Your task to perform on an android device: turn off notifications in google photos Image 0: 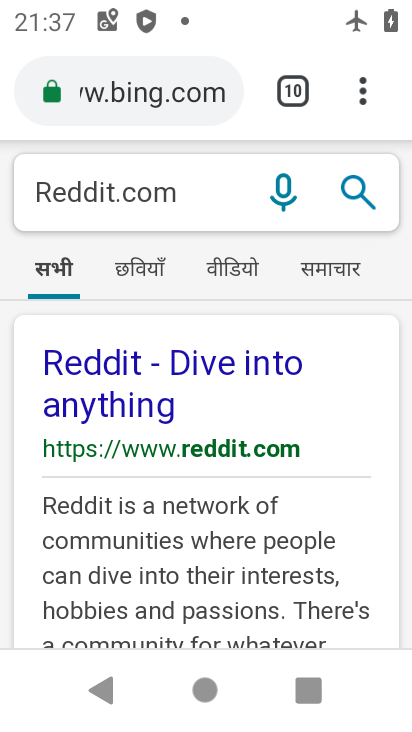
Step 0: press home button
Your task to perform on an android device: turn off notifications in google photos Image 1: 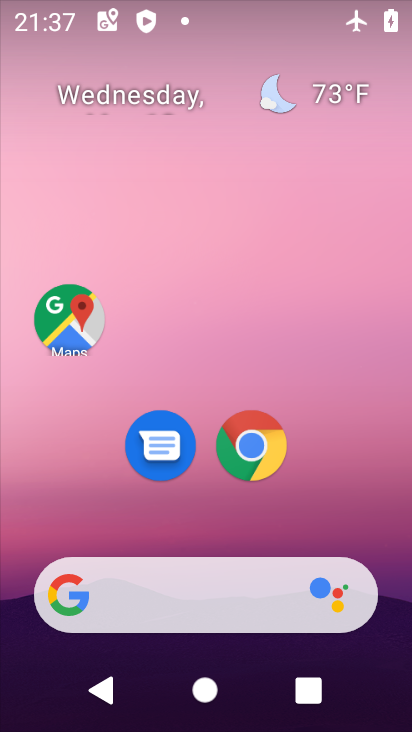
Step 1: drag from (324, 480) to (345, 170)
Your task to perform on an android device: turn off notifications in google photos Image 2: 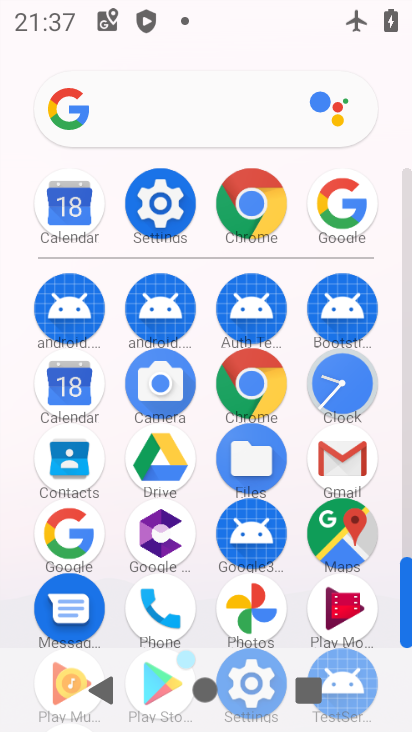
Step 2: click (239, 595)
Your task to perform on an android device: turn off notifications in google photos Image 3: 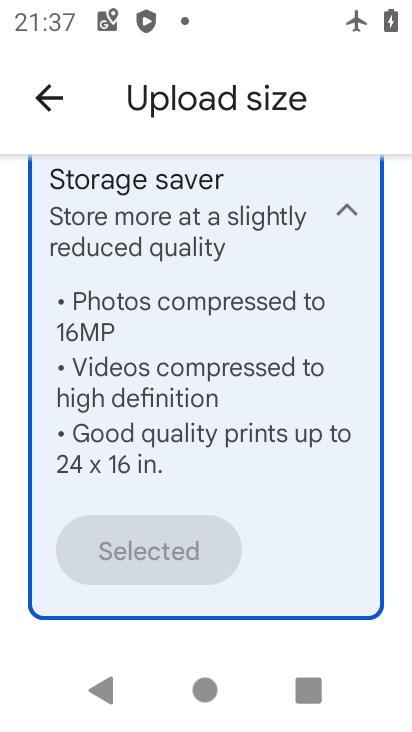
Step 3: click (43, 106)
Your task to perform on an android device: turn off notifications in google photos Image 4: 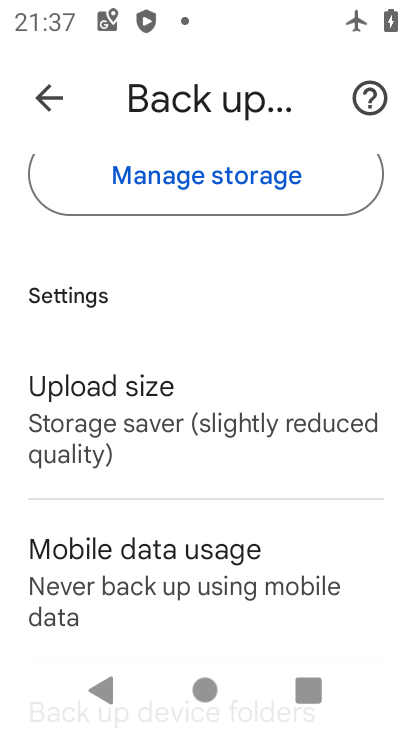
Step 4: click (36, 110)
Your task to perform on an android device: turn off notifications in google photos Image 5: 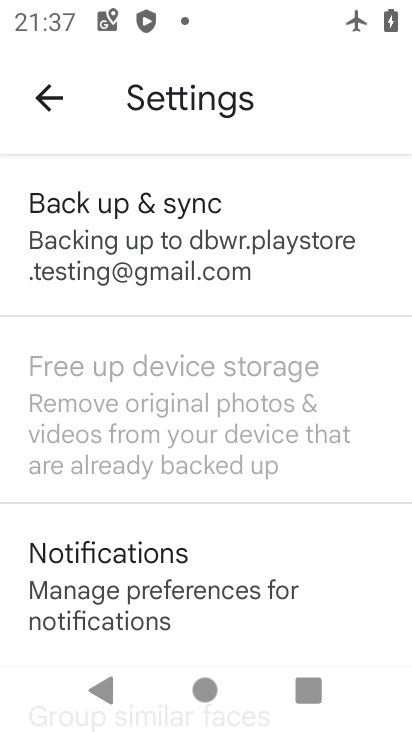
Step 5: click (227, 562)
Your task to perform on an android device: turn off notifications in google photos Image 6: 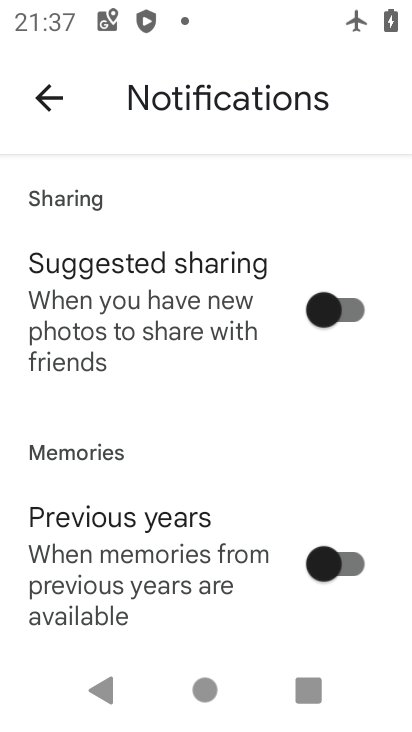
Step 6: drag from (189, 569) to (222, 199)
Your task to perform on an android device: turn off notifications in google photos Image 7: 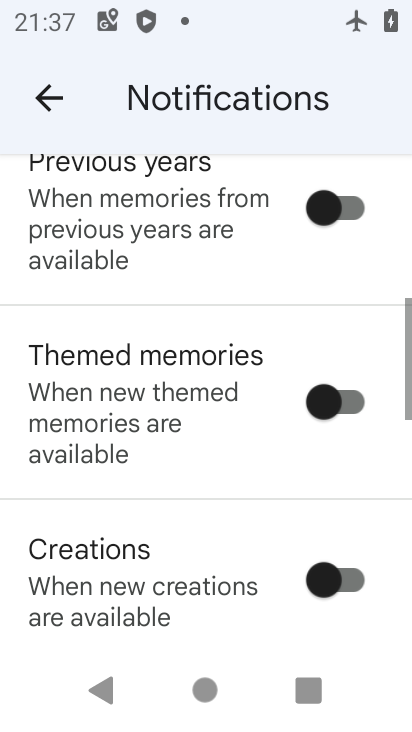
Step 7: click (54, 104)
Your task to perform on an android device: turn off notifications in google photos Image 8: 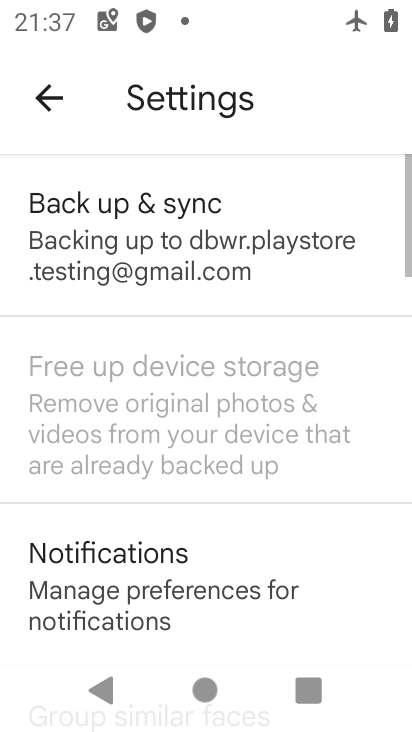
Step 8: click (165, 551)
Your task to perform on an android device: turn off notifications in google photos Image 9: 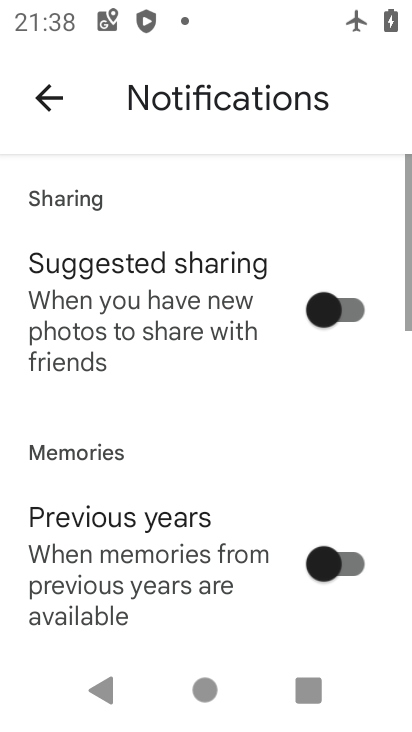
Step 9: drag from (211, 246) to (236, 629)
Your task to perform on an android device: turn off notifications in google photos Image 10: 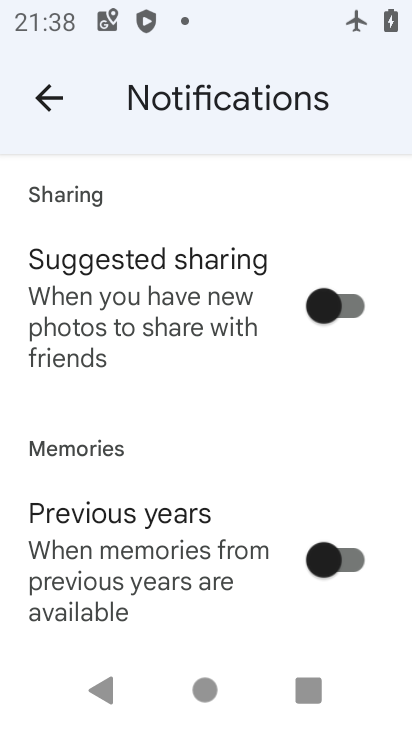
Step 10: click (61, 99)
Your task to perform on an android device: turn off notifications in google photos Image 11: 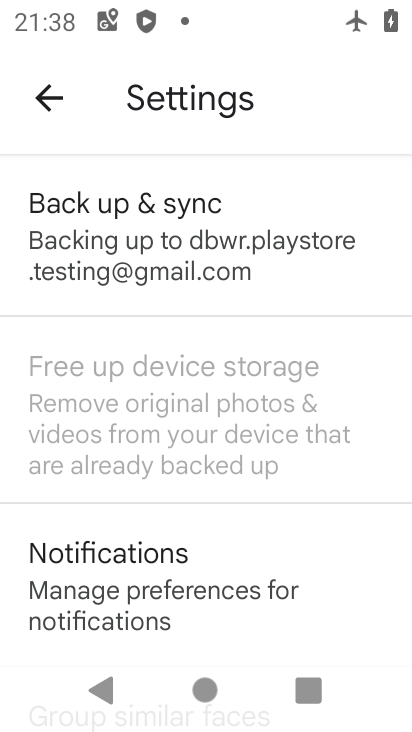
Step 11: click (32, 92)
Your task to perform on an android device: turn off notifications in google photos Image 12: 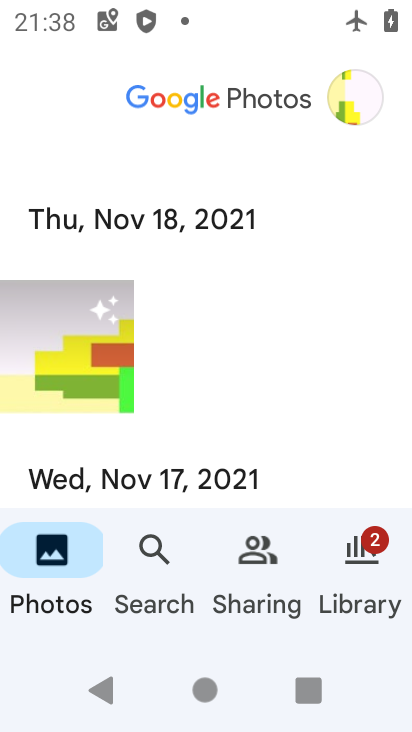
Step 12: click (345, 92)
Your task to perform on an android device: turn off notifications in google photos Image 13: 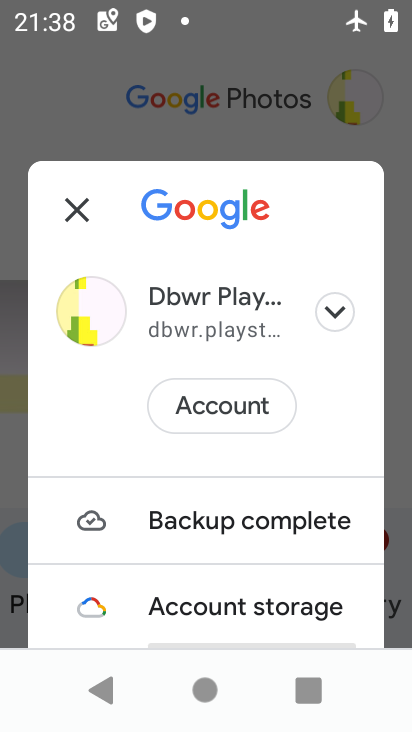
Step 13: drag from (254, 575) to (312, 152)
Your task to perform on an android device: turn off notifications in google photos Image 14: 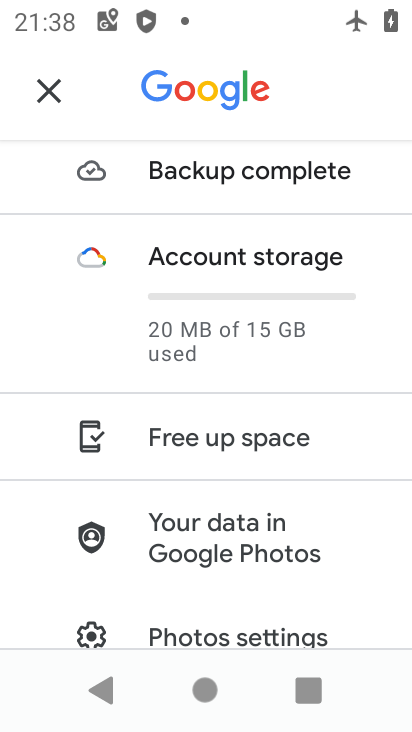
Step 14: drag from (270, 580) to (331, 348)
Your task to perform on an android device: turn off notifications in google photos Image 15: 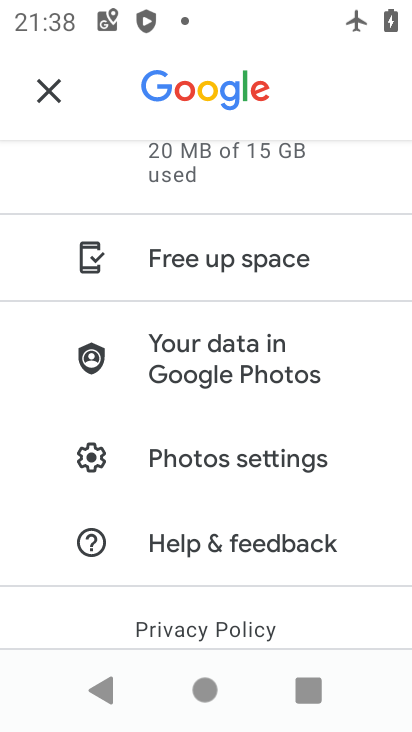
Step 15: click (229, 470)
Your task to perform on an android device: turn off notifications in google photos Image 16: 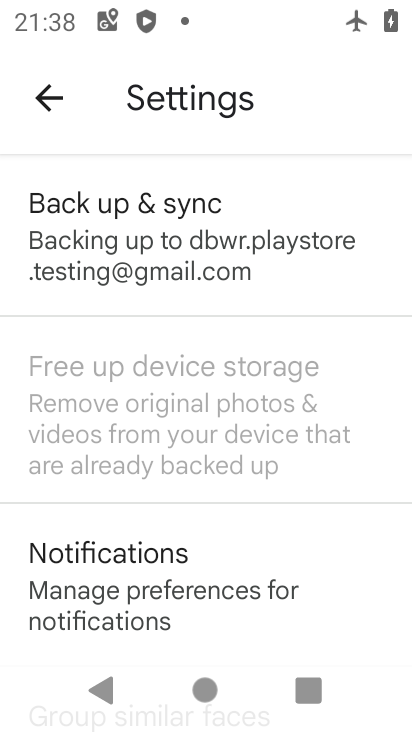
Step 16: click (273, 548)
Your task to perform on an android device: turn off notifications in google photos Image 17: 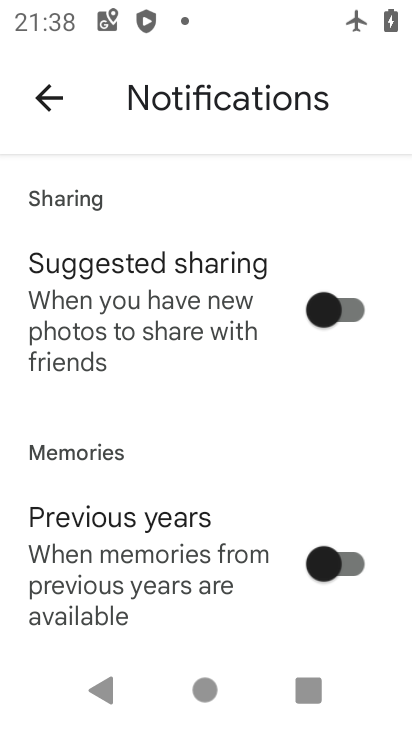
Step 17: task complete